Your task to perform on an android device: open app "Move to iOS" (install if not already installed) and go to login screen Image 0: 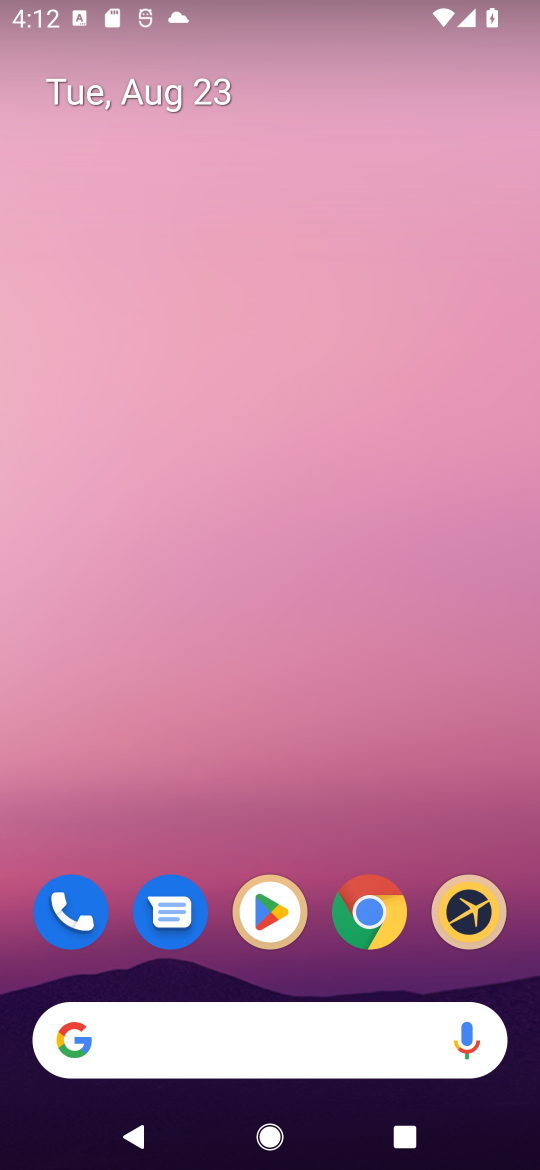
Step 0: drag from (189, 1038) to (192, 118)
Your task to perform on an android device: open app "Move to iOS" (install if not already installed) and go to login screen Image 1: 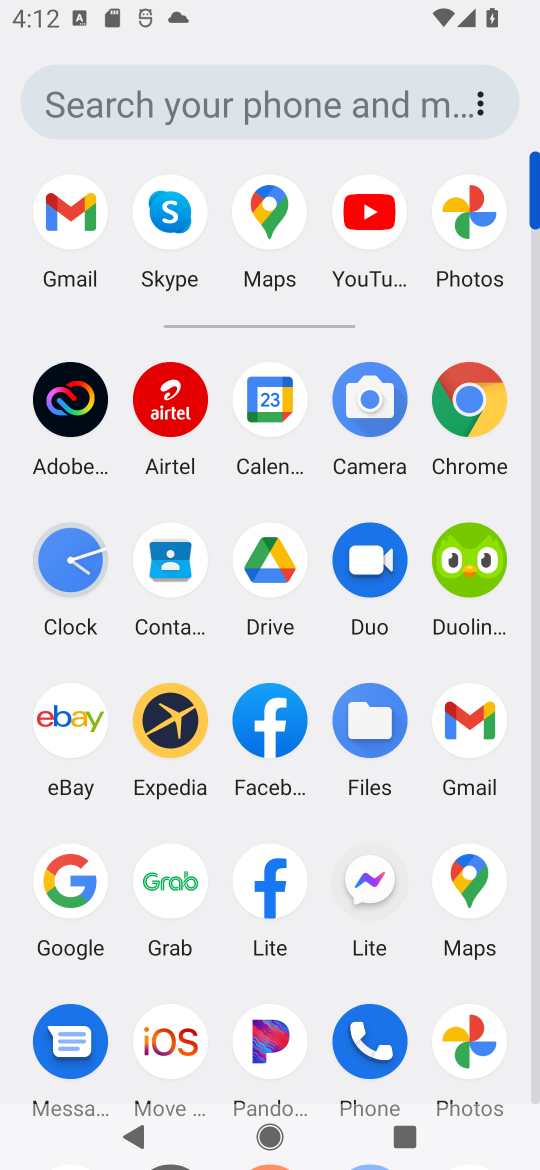
Step 1: drag from (323, 981) to (328, 337)
Your task to perform on an android device: open app "Move to iOS" (install if not already installed) and go to login screen Image 2: 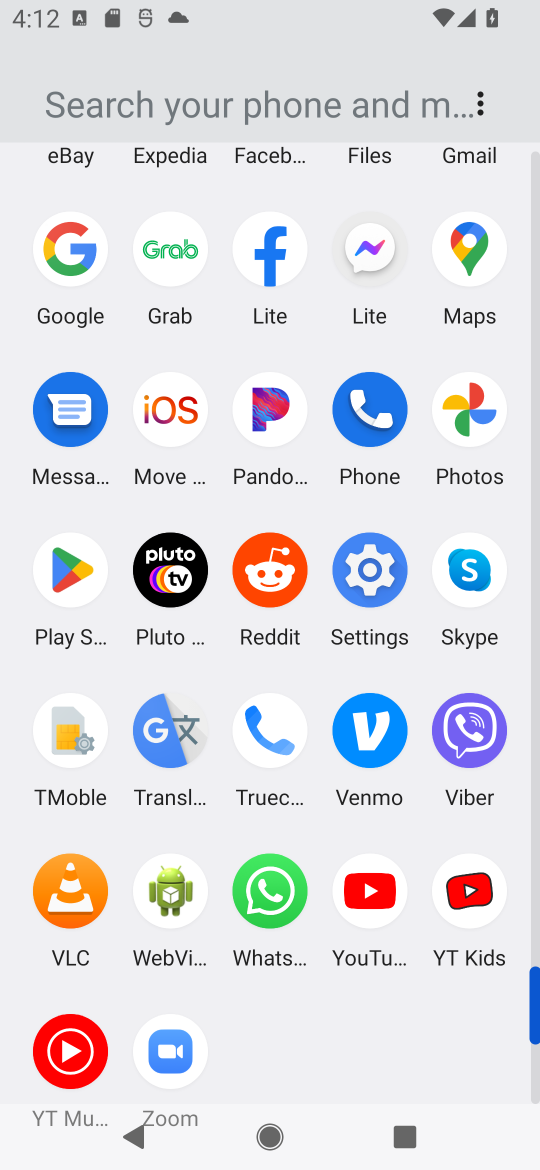
Step 2: click (71, 567)
Your task to perform on an android device: open app "Move to iOS" (install if not already installed) and go to login screen Image 3: 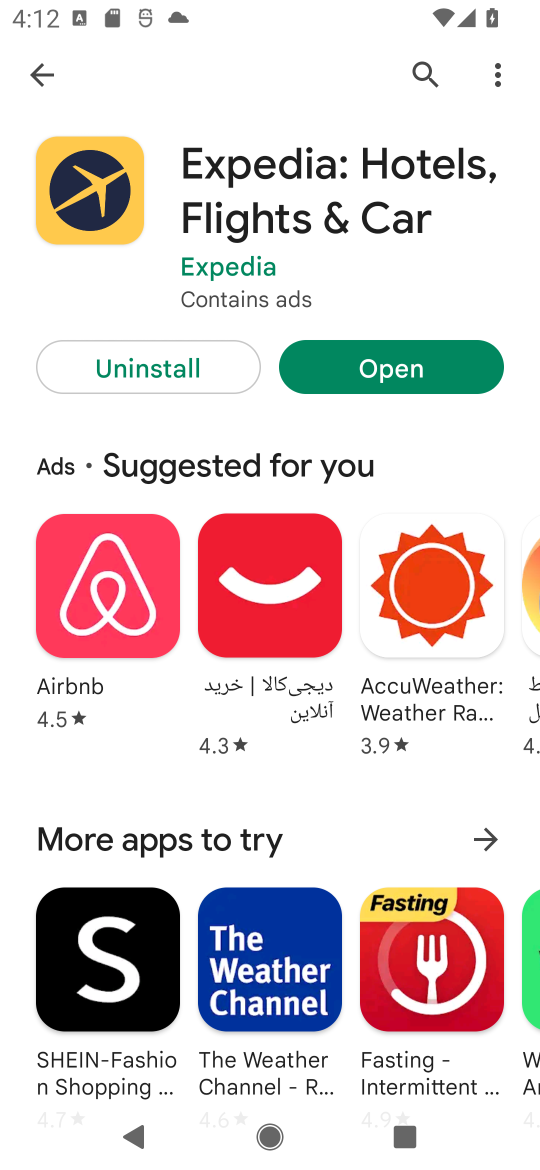
Step 3: press back button
Your task to perform on an android device: open app "Move to iOS" (install if not already installed) and go to login screen Image 4: 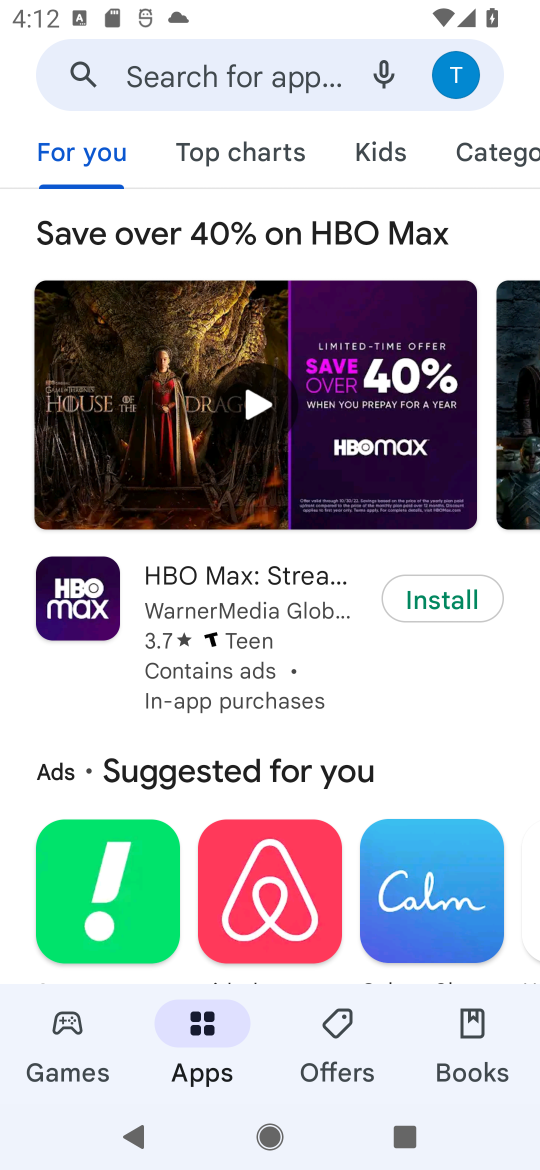
Step 4: click (297, 73)
Your task to perform on an android device: open app "Move to iOS" (install if not already installed) and go to login screen Image 5: 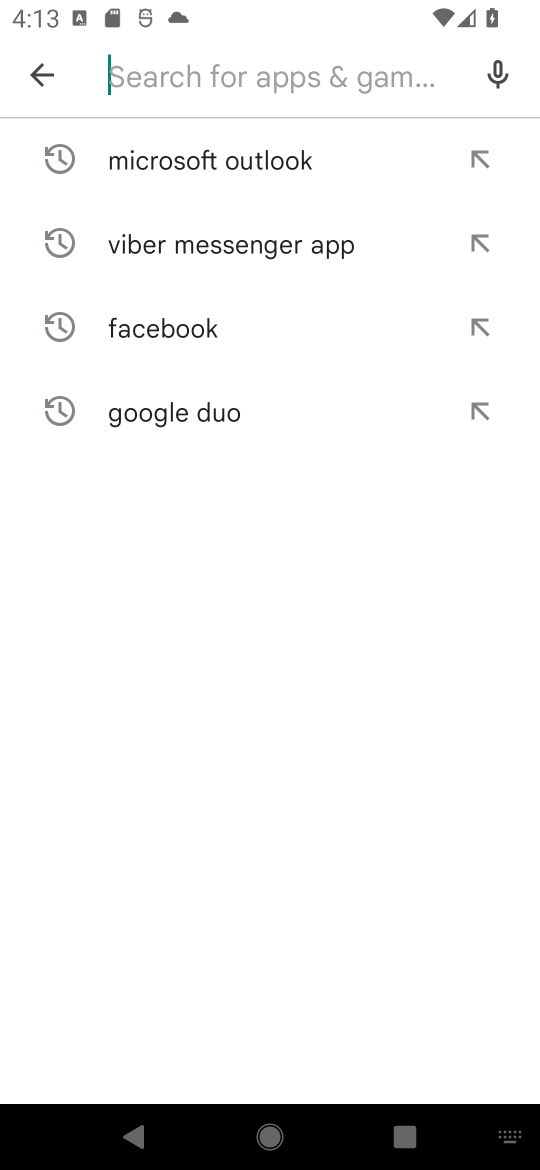
Step 5: type "Move to iOS"
Your task to perform on an android device: open app "Move to iOS" (install if not already installed) and go to login screen Image 6: 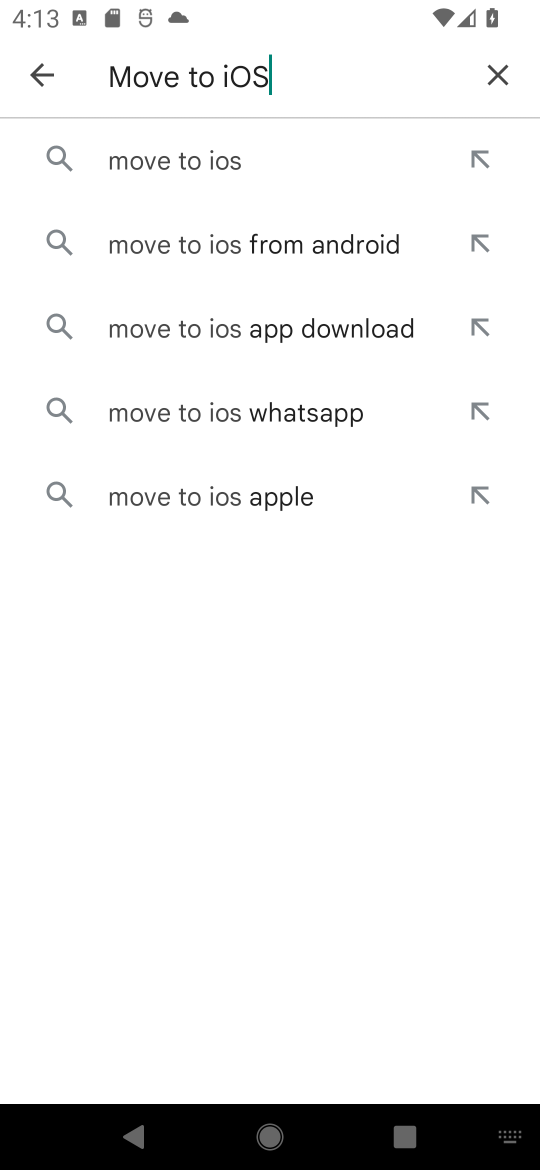
Step 6: click (188, 158)
Your task to perform on an android device: open app "Move to iOS" (install if not already installed) and go to login screen Image 7: 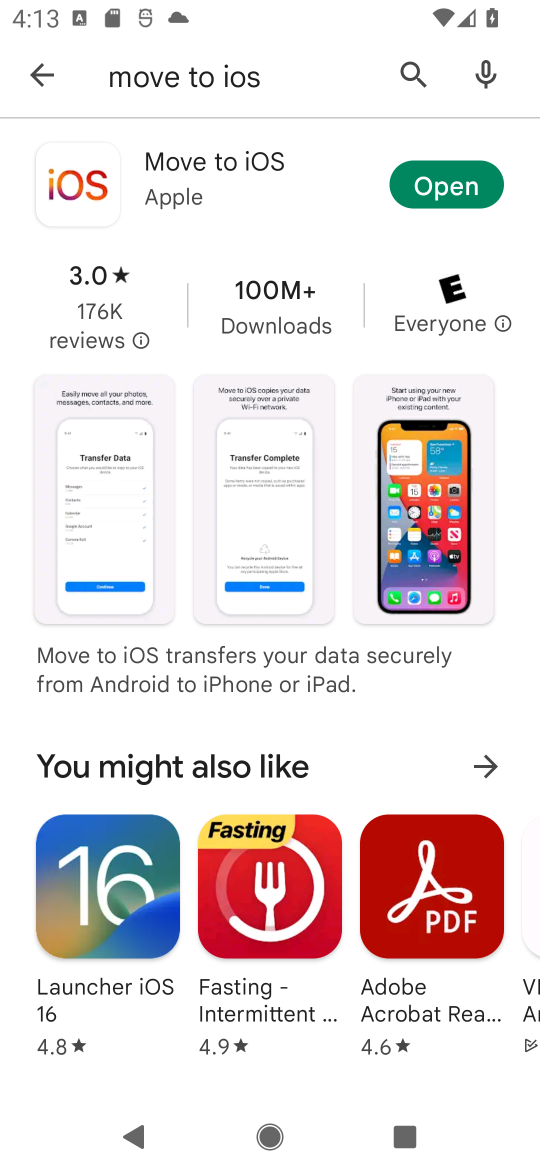
Step 7: click (469, 189)
Your task to perform on an android device: open app "Move to iOS" (install if not already installed) and go to login screen Image 8: 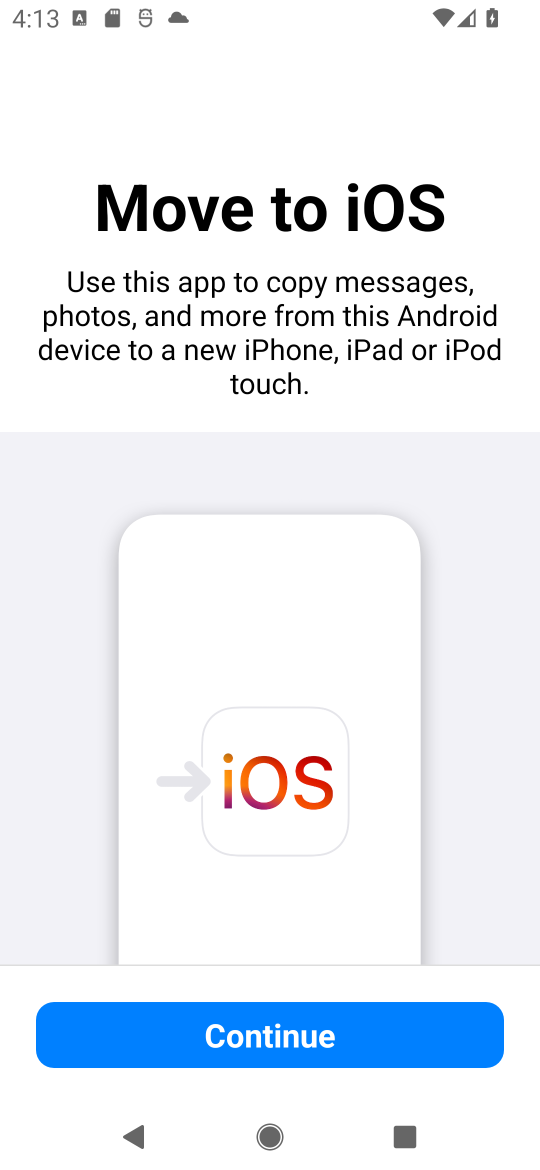
Step 8: click (229, 1031)
Your task to perform on an android device: open app "Move to iOS" (install if not already installed) and go to login screen Image 9: 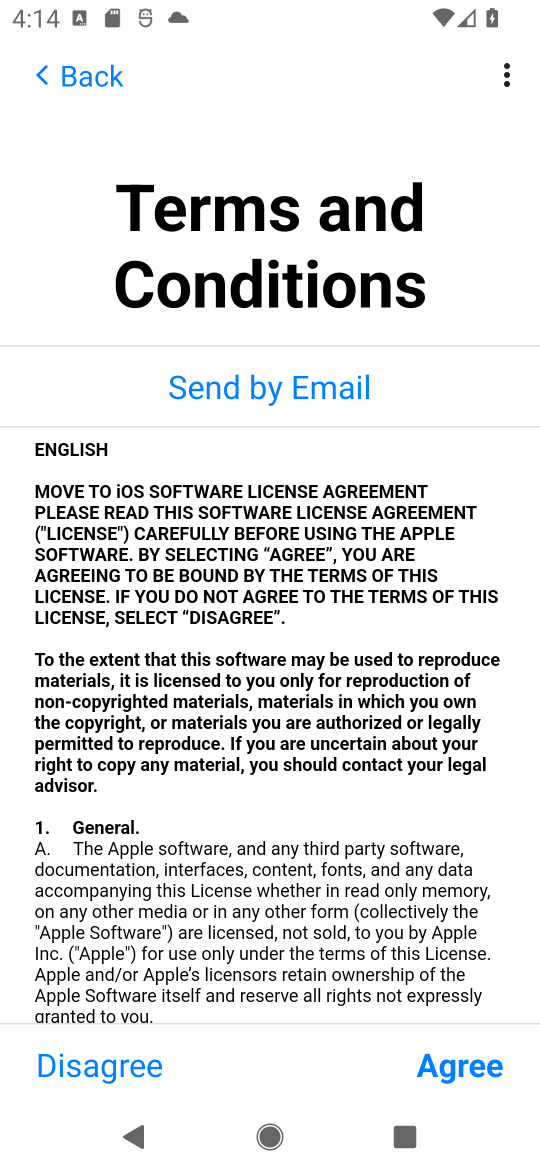
Step 9: click (441, 1058)
Your task to perform on an android device: open app "Move to iOS" (install if not already installed) and go to login screen Image 10: 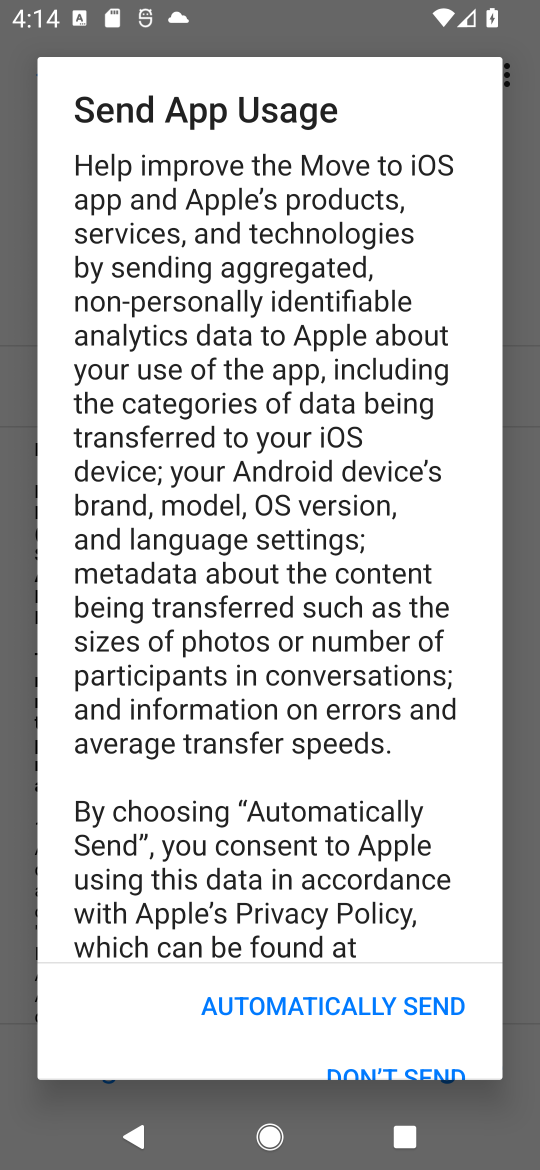
Step 10: click (385, 1071)
Your task to perform on an android device: open app "Move to iOS" (install if not already installed) and go to login screen Image 11: 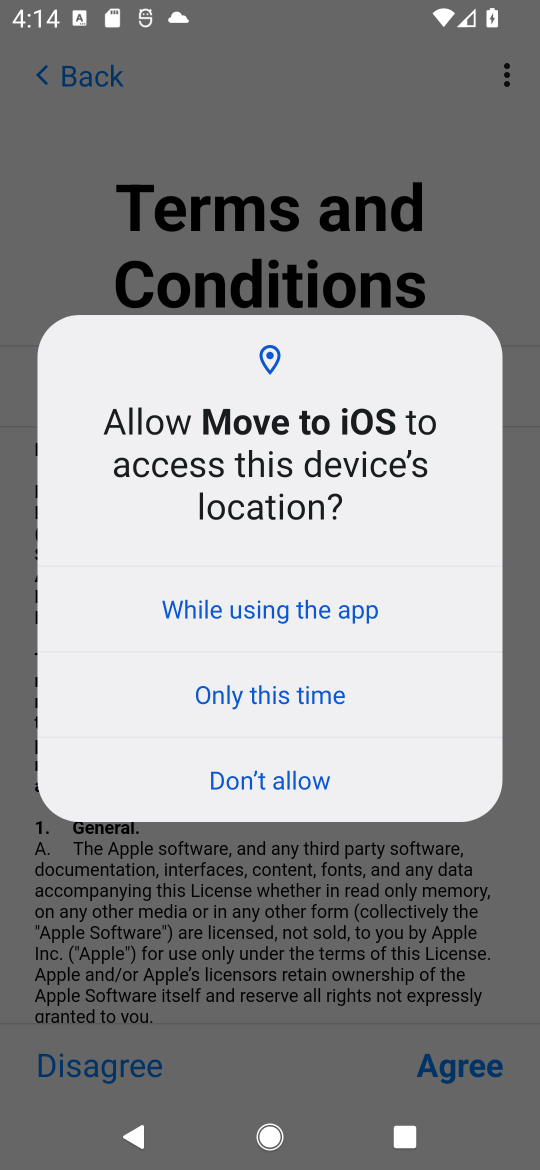
Step 11: click (357, 612)
Your task to perform on an android device: open app "Move to iOS" (install if not already installed) and go to login screen Image 12: 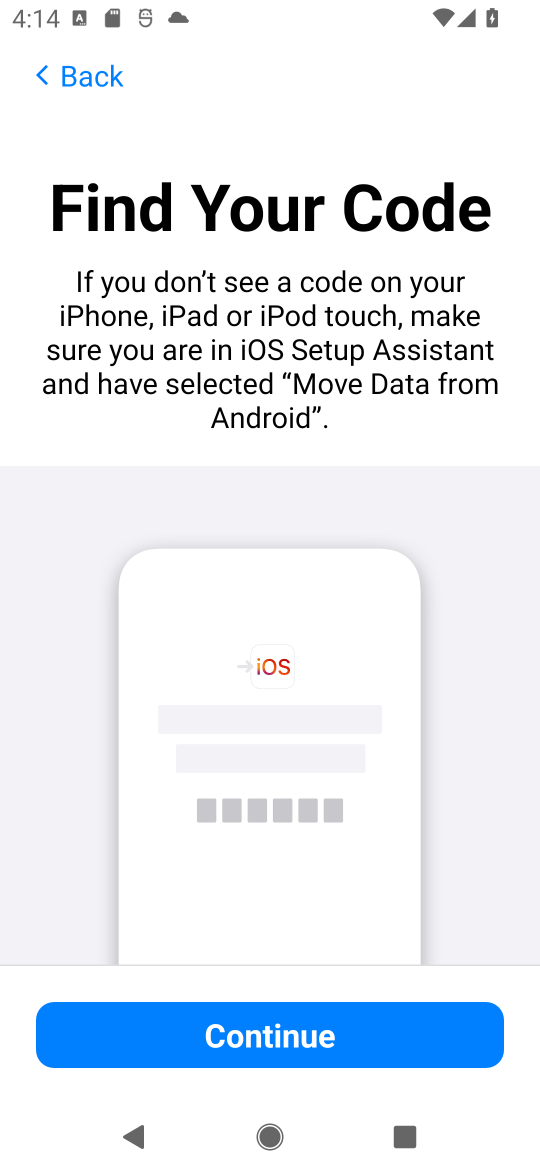
Step 12: task complete